Your task to perform on an android device: Search for logitech g903 on ebay, select the first entry, add it to the cart, then select checkout. Image 0: 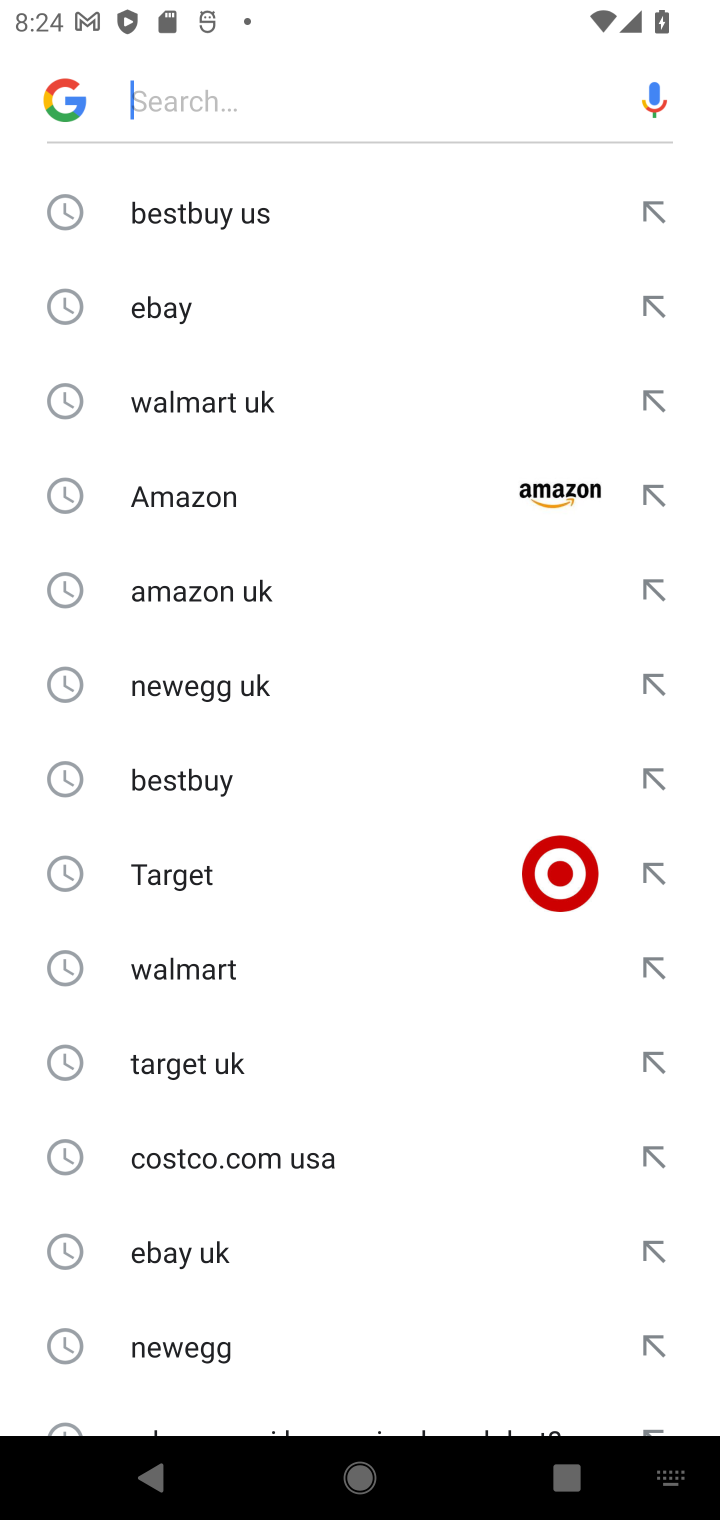
Step 0: type "ebay.com"
Your task to perform on an android device: Search for logitech g903 on ebay, select the first entry, add it to the cart, then select checkout. Image 1: 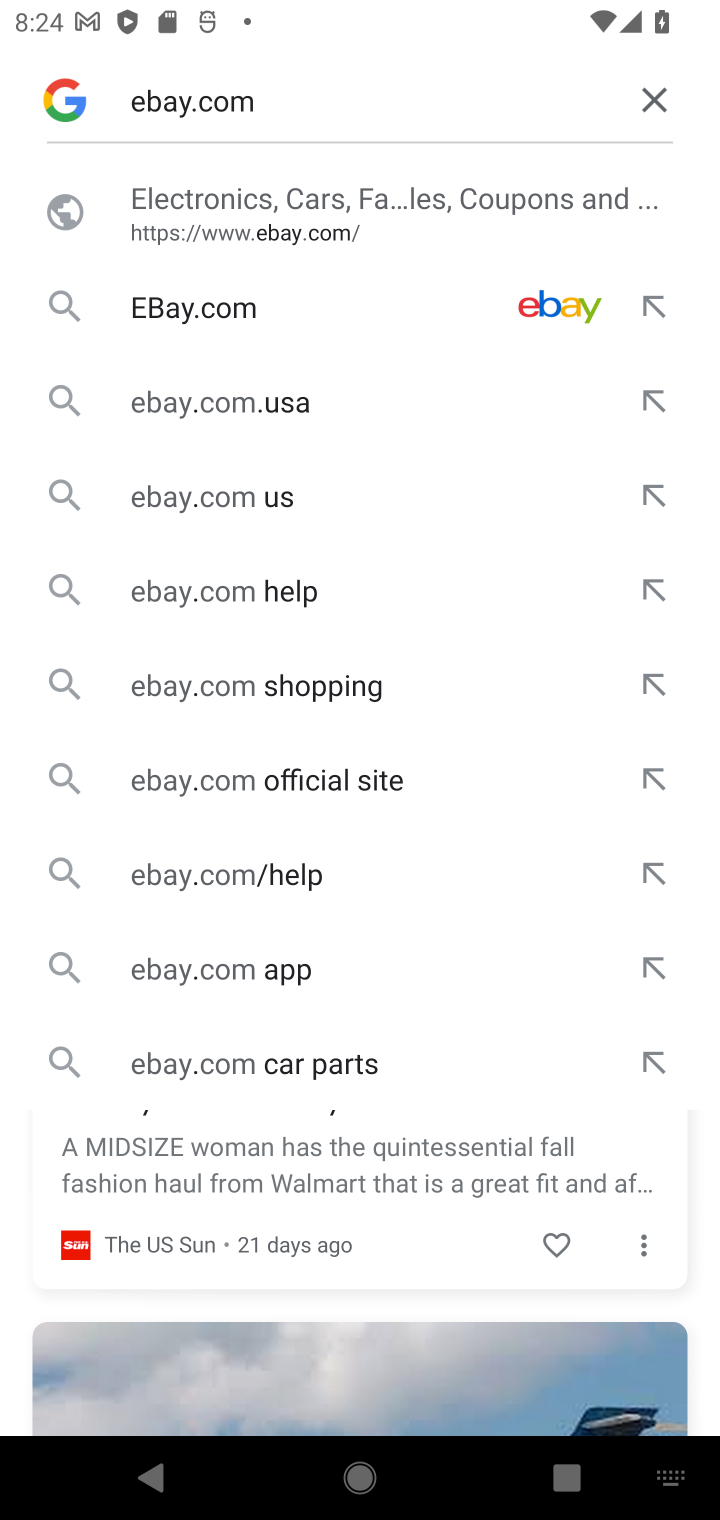
Step 1: click (183, 318)
Your task to perform on an android device: Search for logitech g903 on ebay, select the first entry, add it to the cart, then select checkout. Image 2: 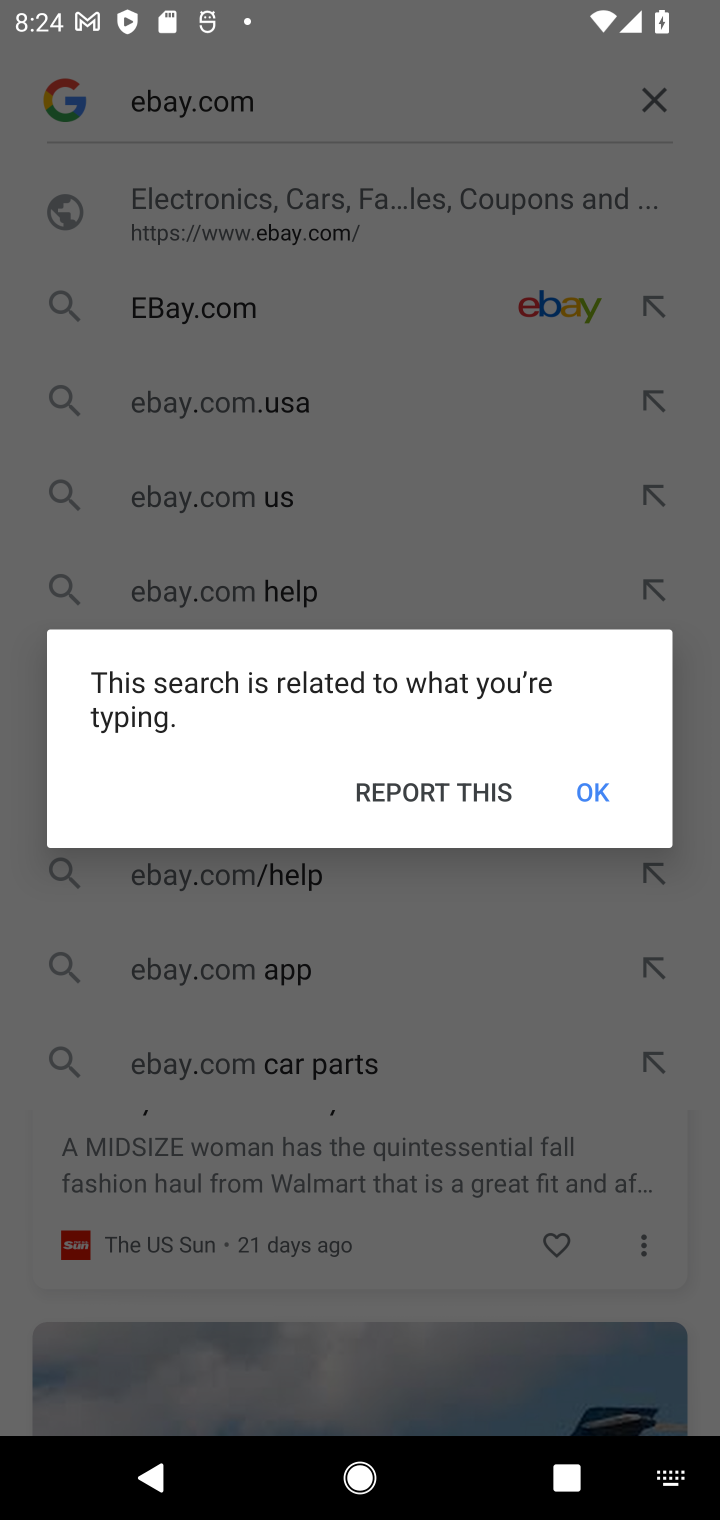
Step 2: click (587, 798)
Your task to perform on an android device: Search for logitech g903 on ebay, select the first entry, add it to the cart, then select checkout. Image 3: 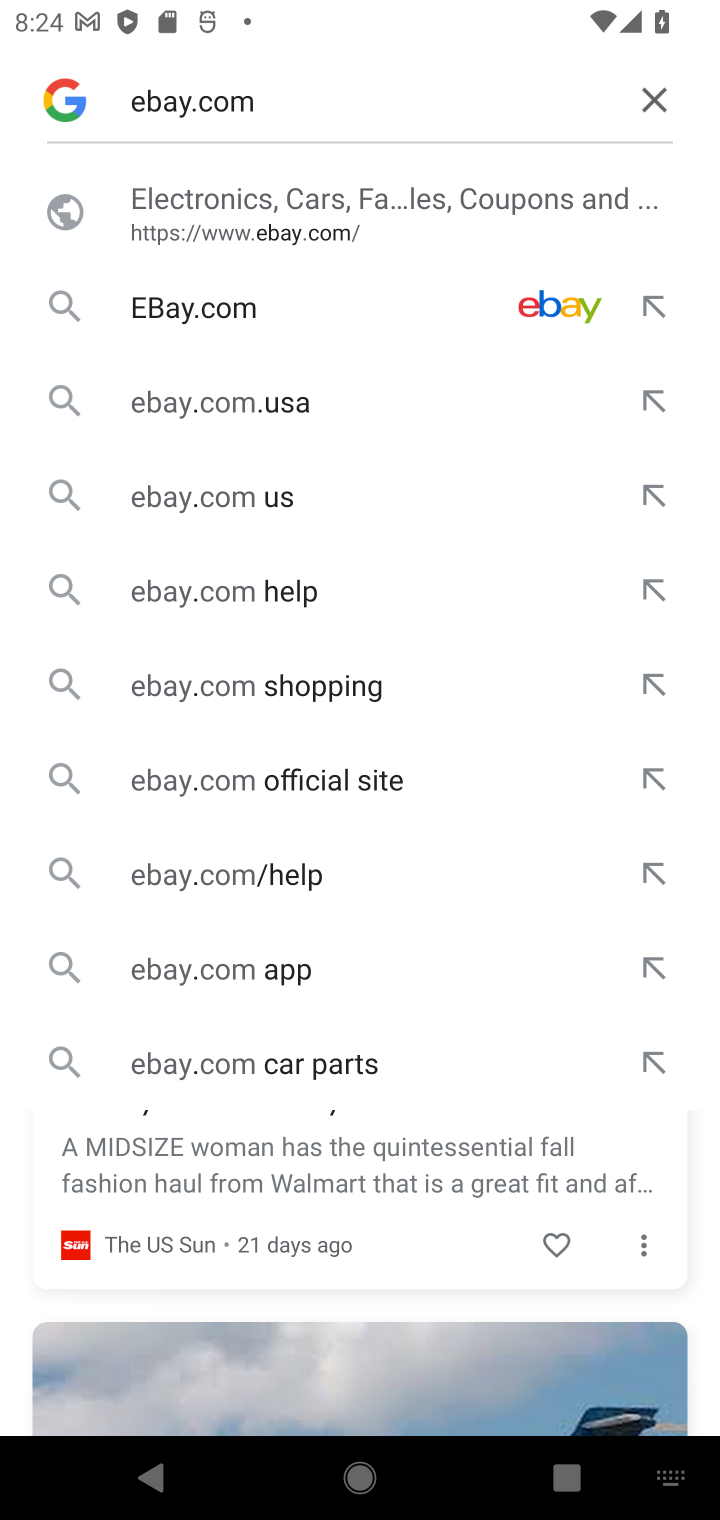
Step 3: click (157, 304)
Your task to perform on an android device: Search for logitech g903 on ebay, select the first entry, add it to the cart, then select checkout. Image 4: 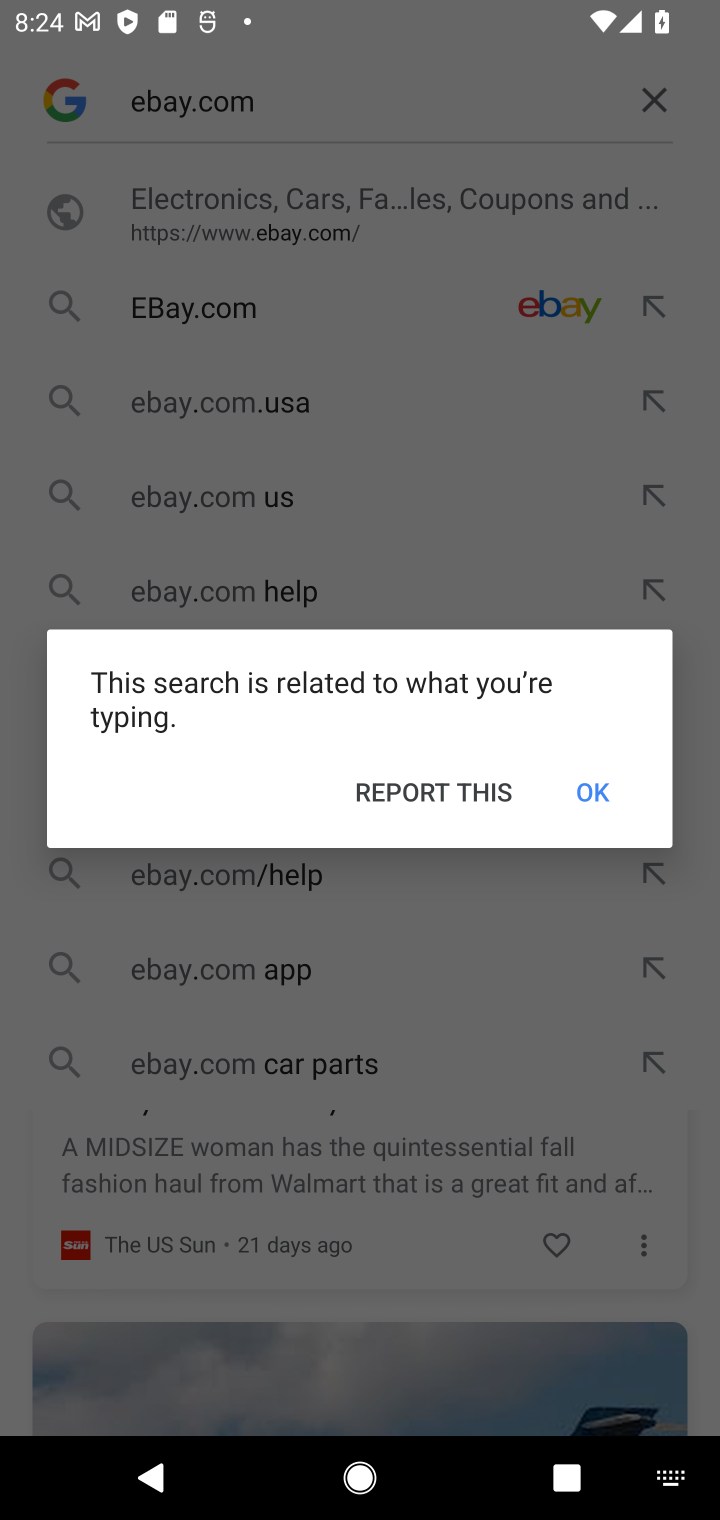
Step 4: click (600, 804)
Your task to perform on an android device: Search for logitech g903 on ebay, select the first entry, add it to the cart, then select checkout. Image 5: 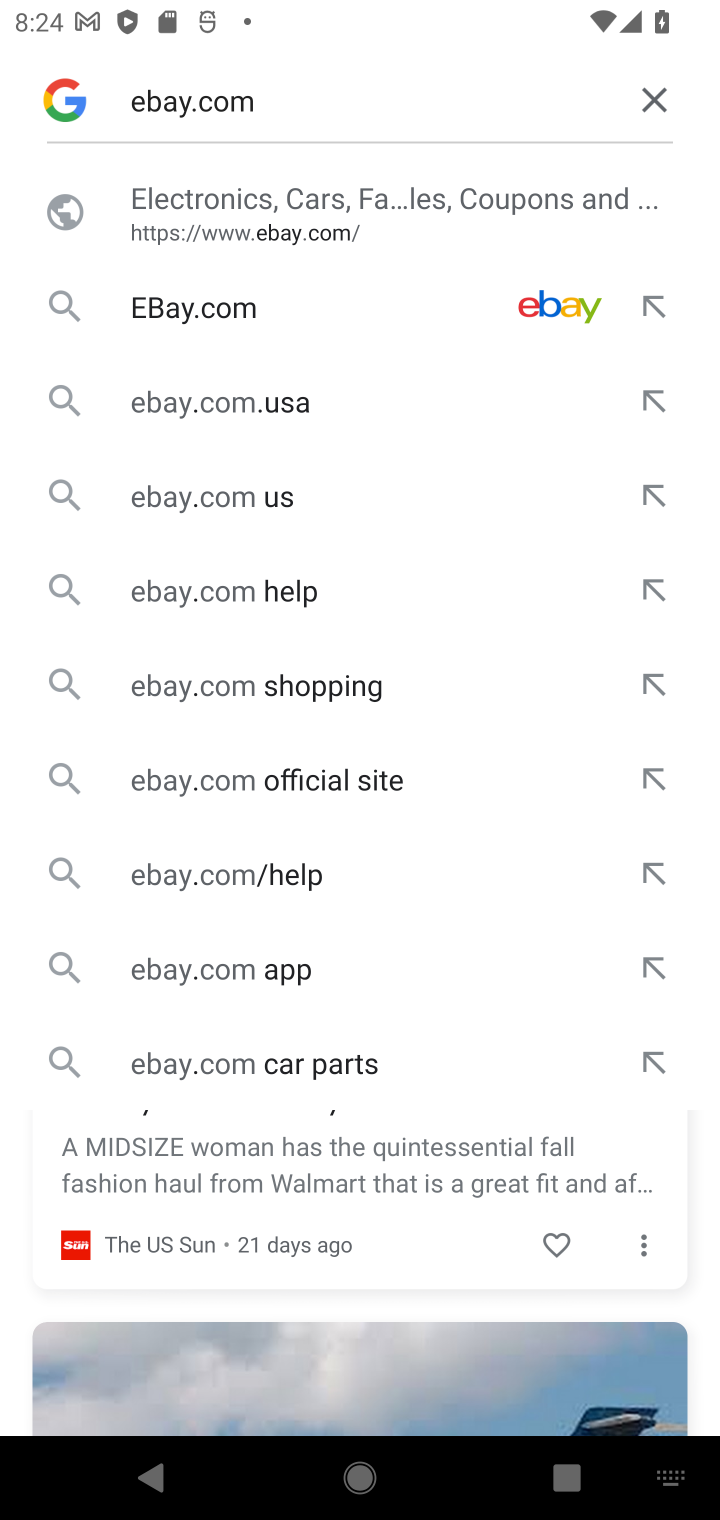
Step 5: click (237, 238)
Your task to perform on an android device: Search for logitech g903 on ebay, select the first entry, add it to the cart, then select checkout. Image 6: 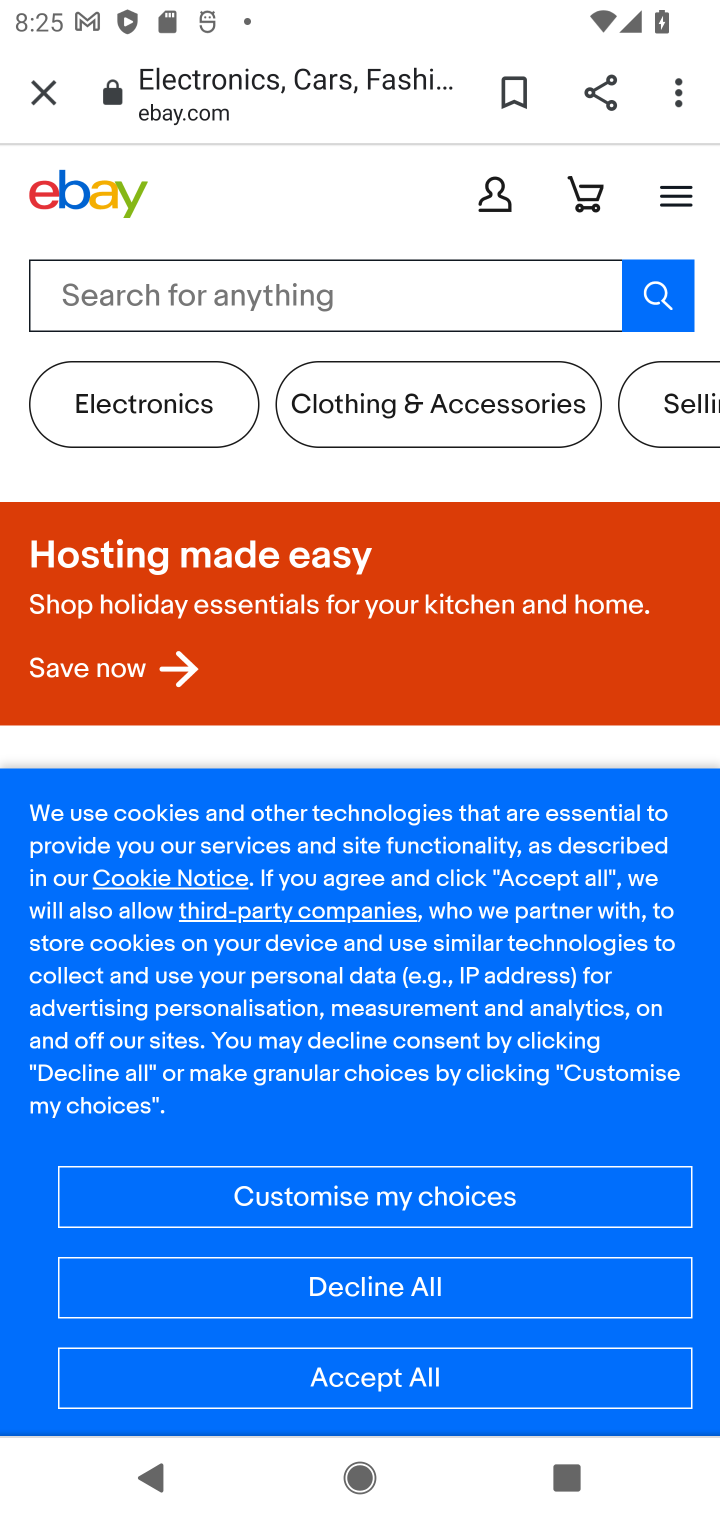
Step 6: click (163, 298)
Your task to perform on an android device: Search for logitech g903 on ebay, select the first entry, add it to the cart, then select checkout. Image 7: 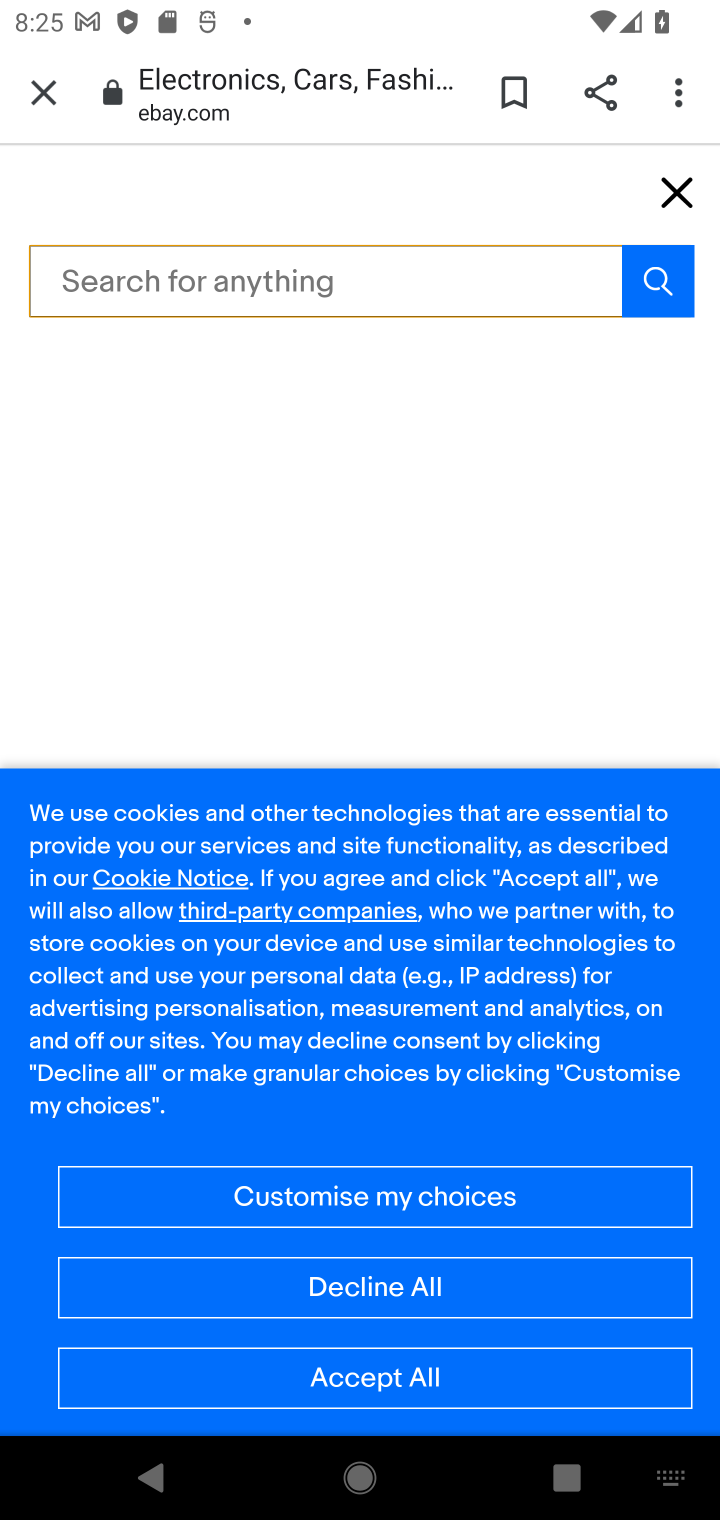
Step 7: type "logitech g903"
Your task to perform on an android device: Search for logitech g903 on ebay, select the first entry, add it to the cart, then select checkout. Image 8: 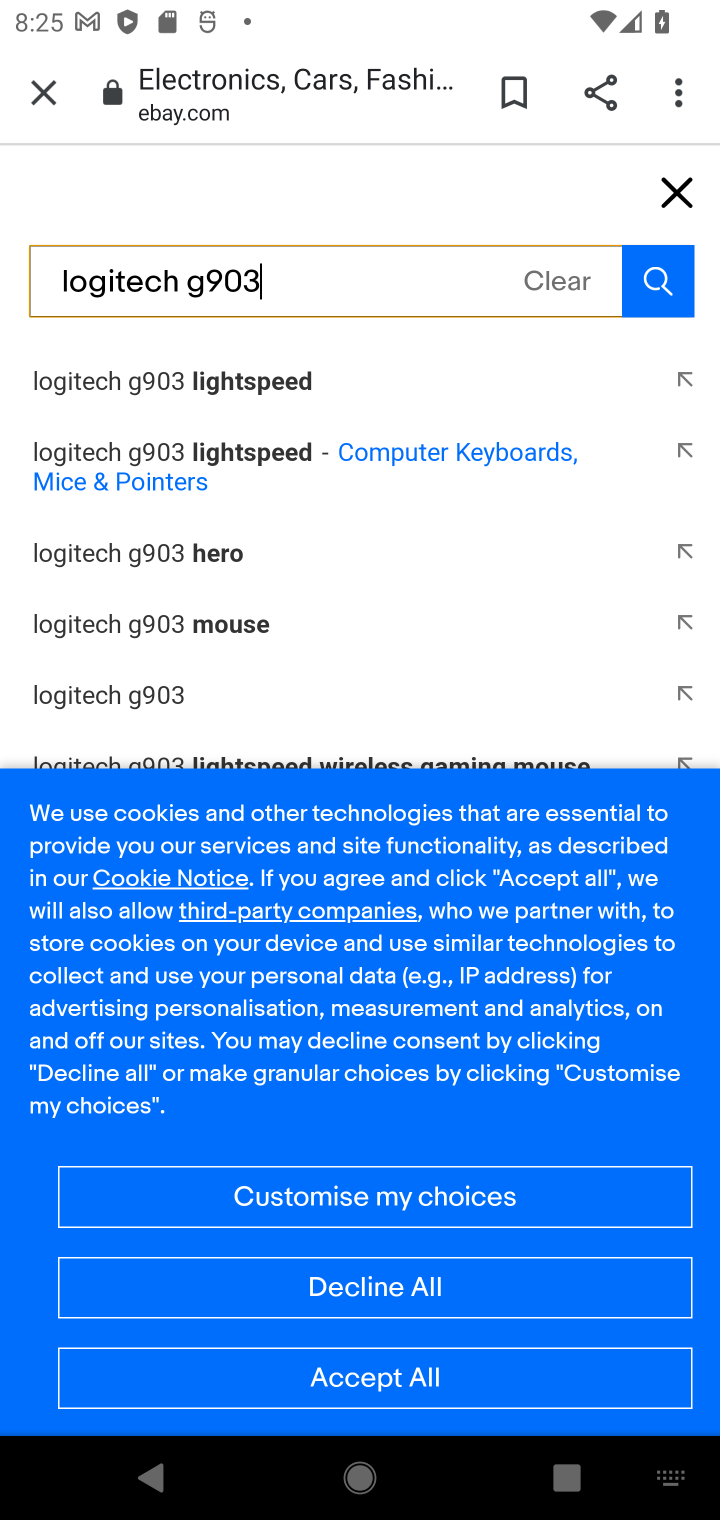
Step 8: click (172, 699)
Your task to perform on an android device: Search for logitech g903 on ebay, select the first entry, add it to the cart, then select checkout. Image 9: 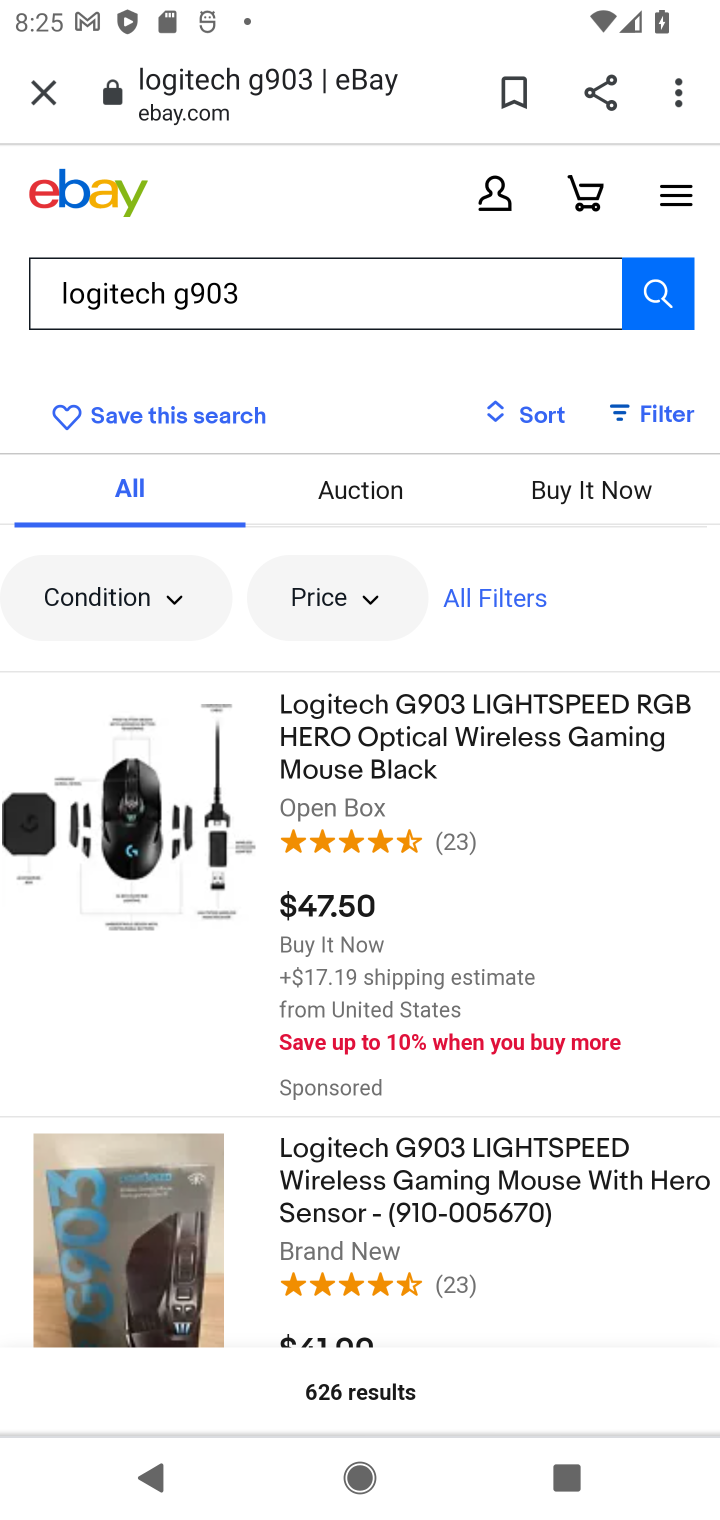
Step 9: click (176, 861)
Your task to perform on an android device: Search for logitech g903 on ebay, select the first entry, add it to the cart, then select checkout. Image 10: 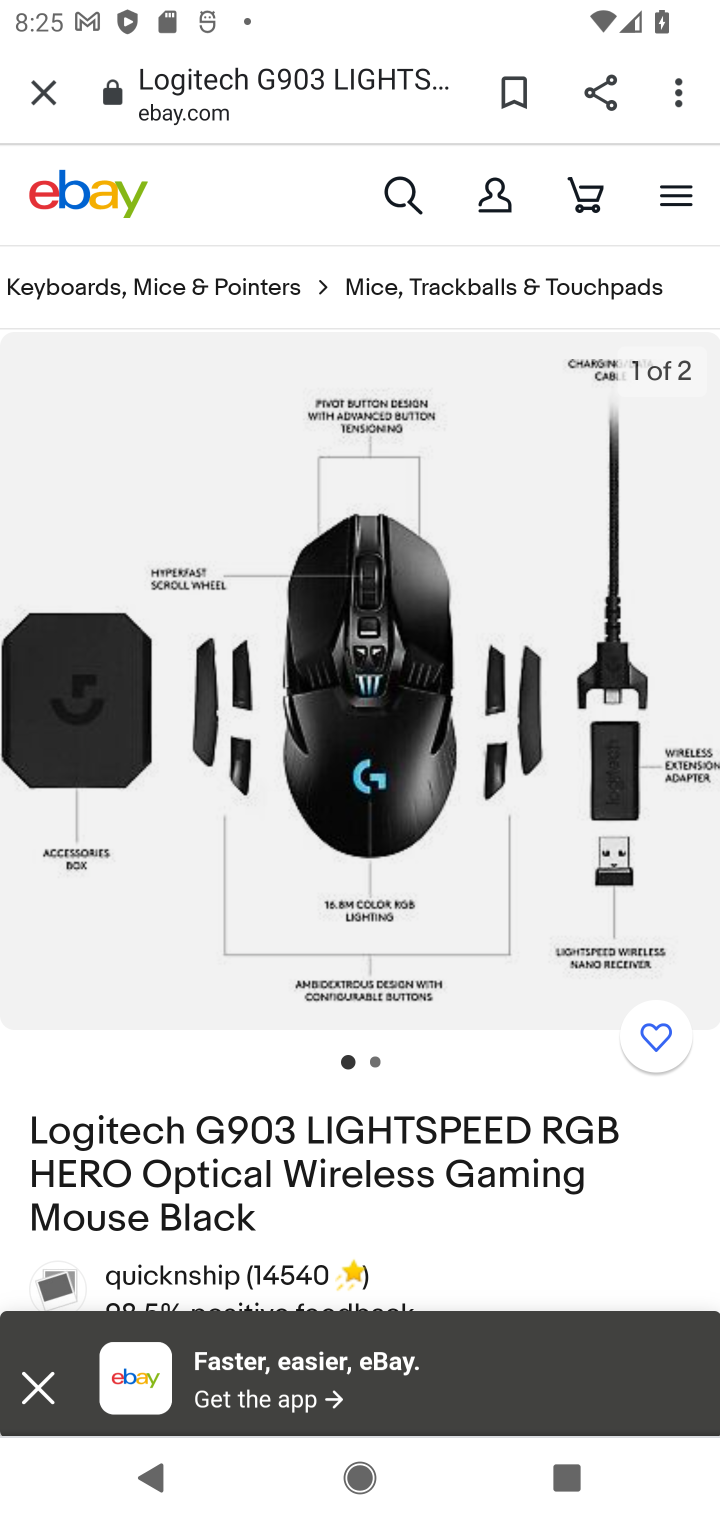
Step 10: drag from (449, 1131) to (416, 501)
Your task to perform on an android device: Search for logitech g903 on ebay, select the first entry, add it to the cart, then select checkout. Image 11: 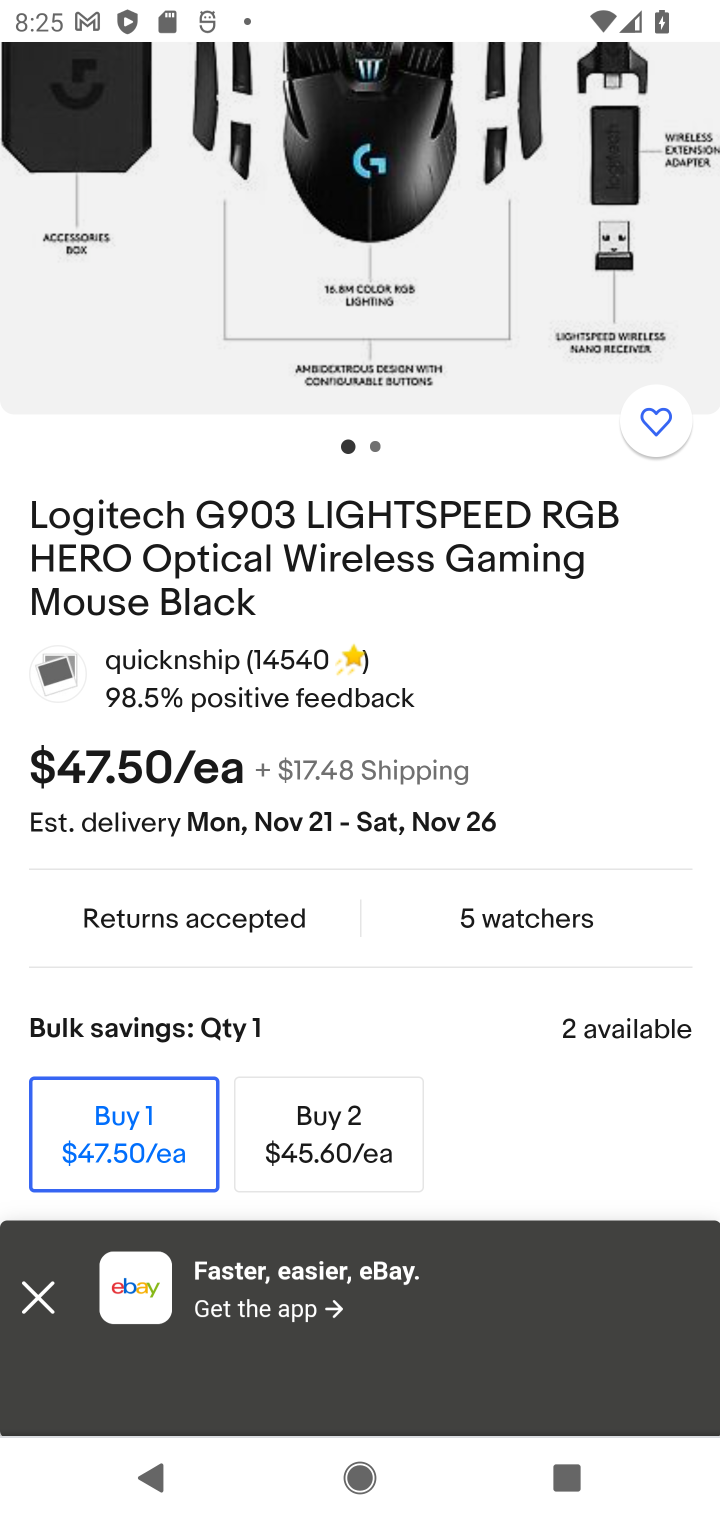
Step 11: drag from (402, 987) to (353, 593)
Your task to perform on an android device: Search for logitech g903 on ebay, select the first entry, add it to the cart, then select checkout. Image 12: 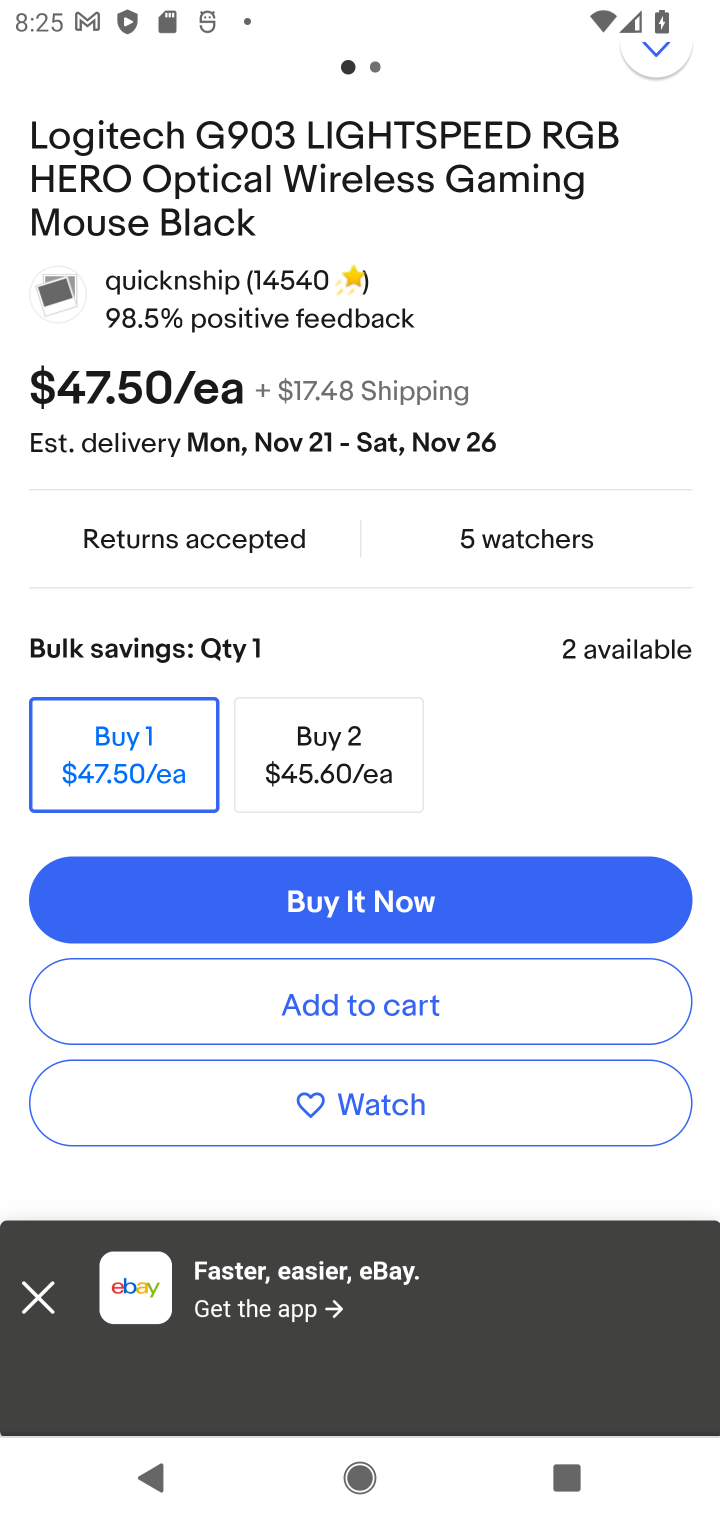
Step 12: click (338, 1015)
Your task to perform on an android device: Search for logitech g903 on ebay, select the first entry, add it to the cart, then select checkout. Image 13: 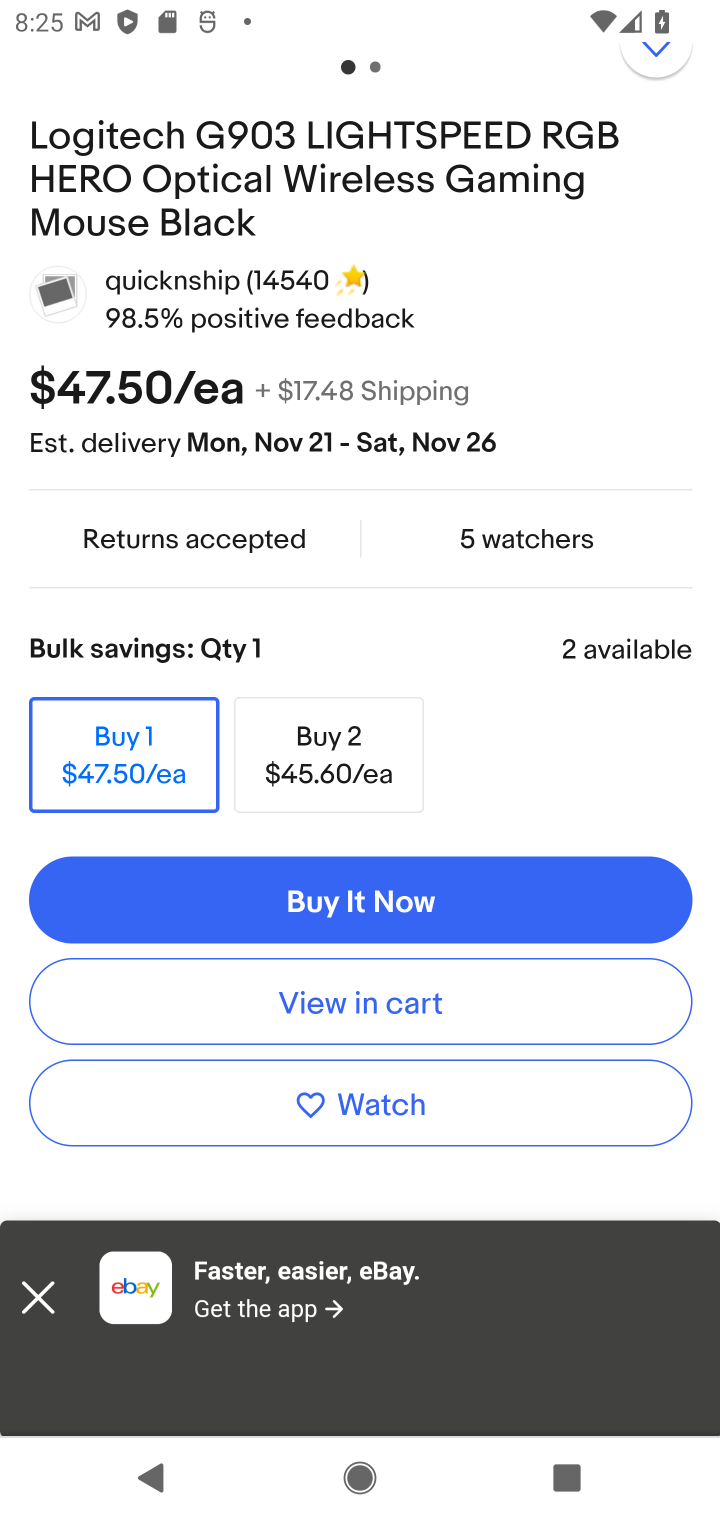
Step 13: click (338, 1015)
Your task to perform on an android device: Search for logitech g903 on ebay, select the first entry, add it to the cart, then select checkout. Image 14: 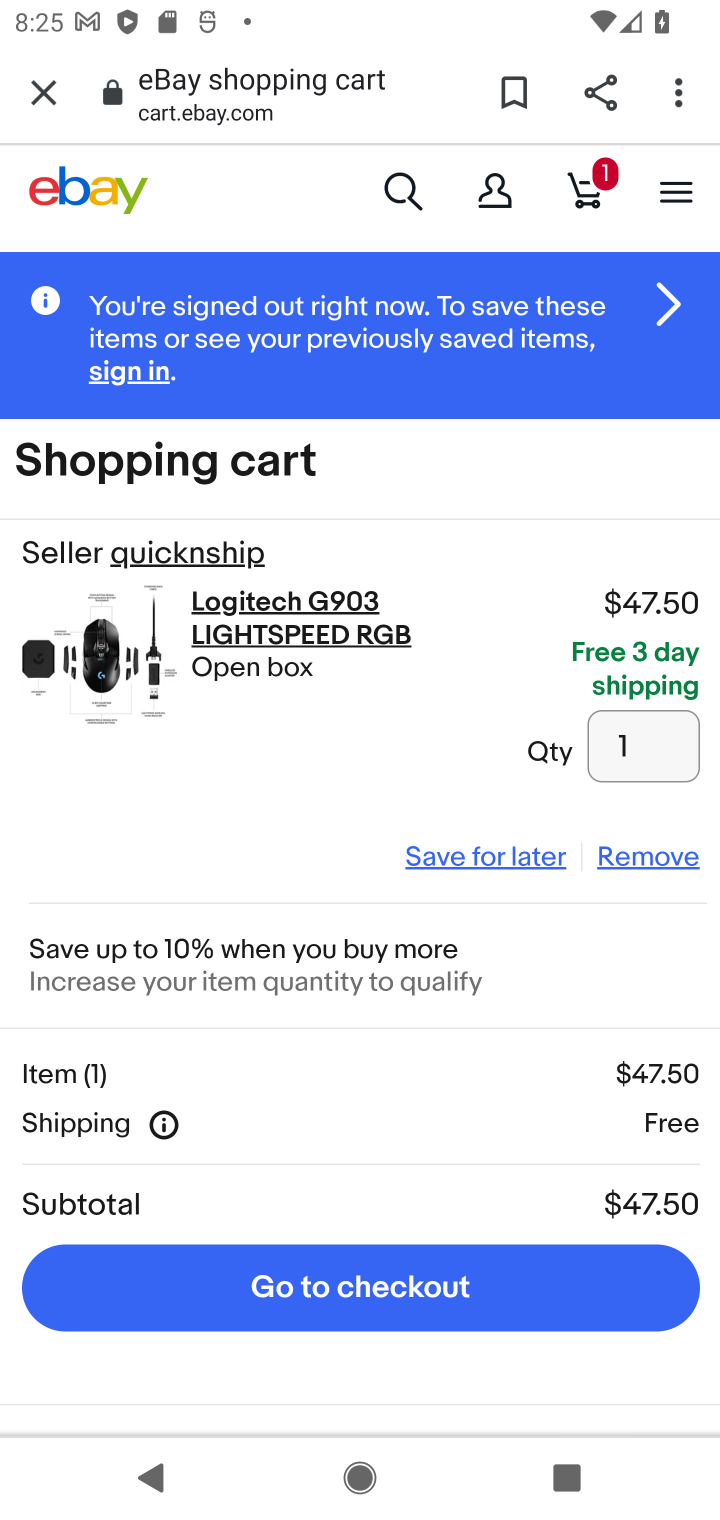
Step 14: click (374, 1287)
Your task to perform on an android device: Search for logitech g903 on ebay, select the first entry, add it to the cart, then select checkout. Image 15: 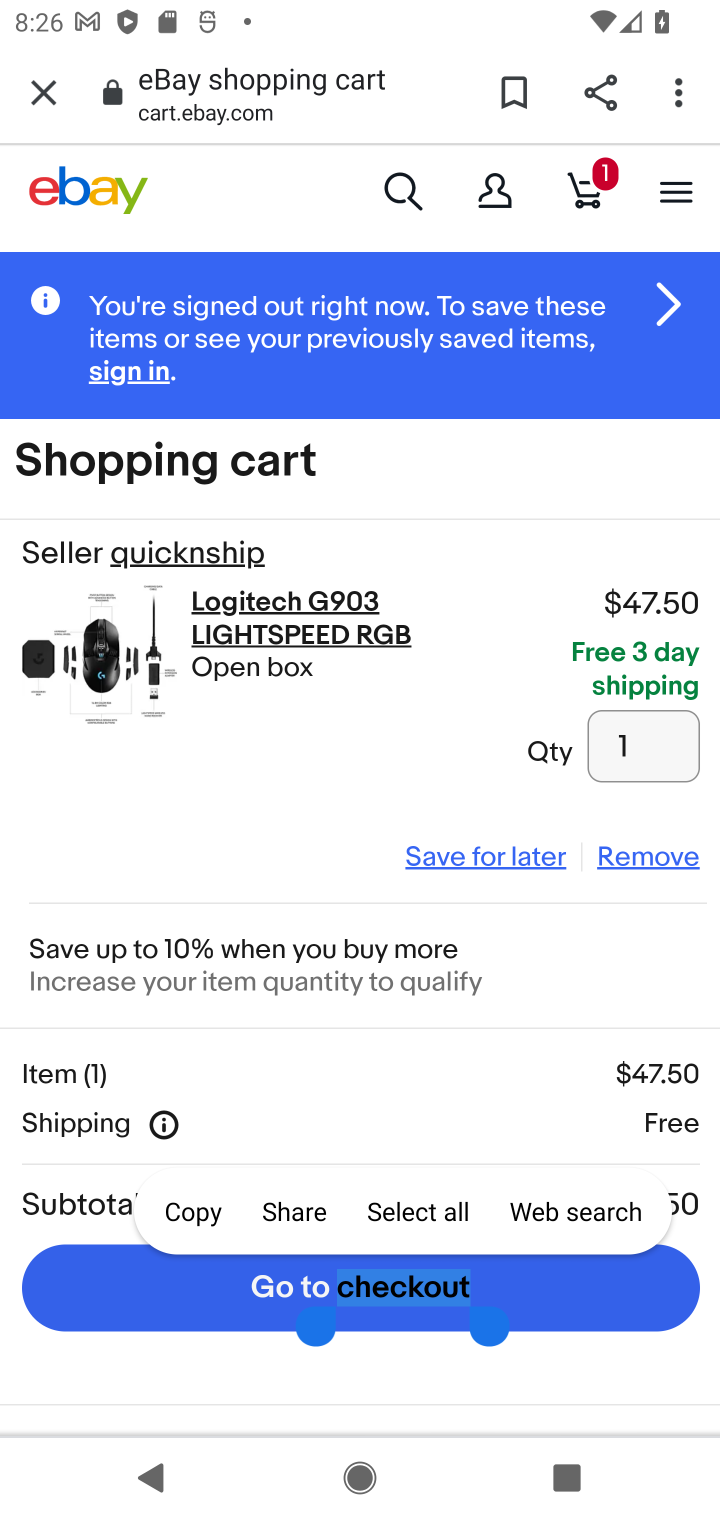
Step 15: click (304, 1293)
Your task to perform on an android device: Search for logitech g903 on ebay, select the first entry, add it to the cart, then select checkout. Image 16: 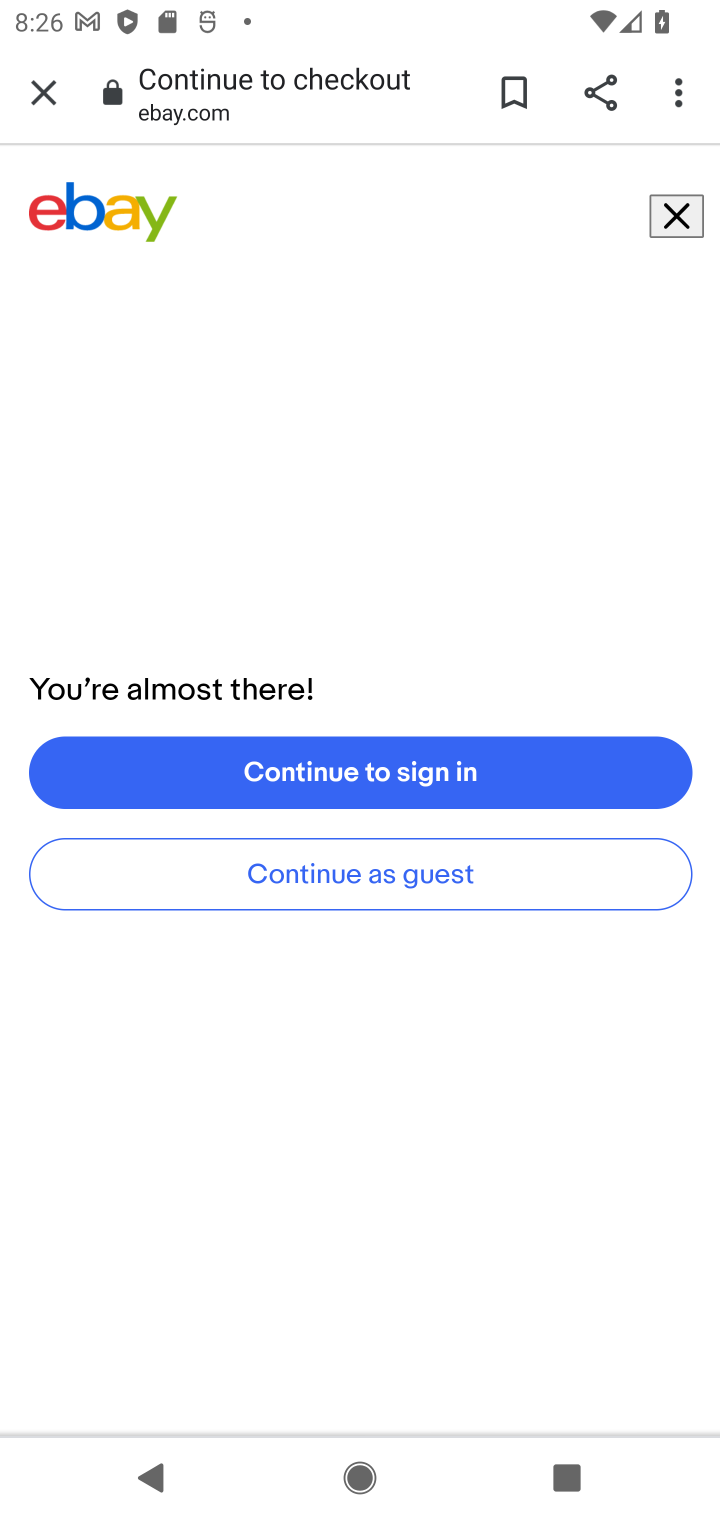
Step 16: task complete